Your task to perform on an android device: toggle sleep mode Image 0: 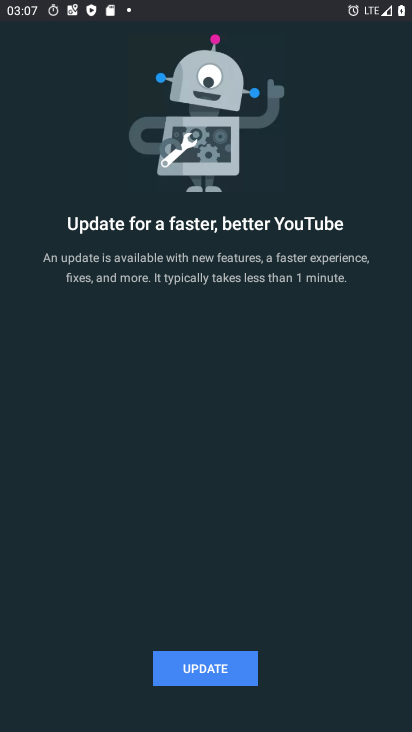
Step 0: press home button
Your task to perform on an android device: toggle sleep mode Image 1: 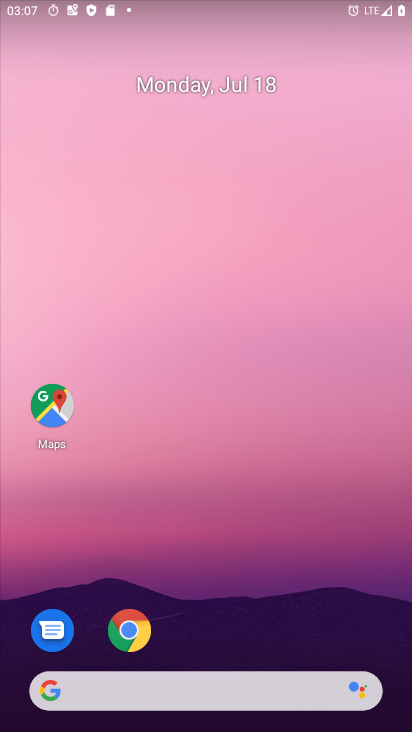
Step 1: drag from (209, 627) to (165, 69)
Your task to perform on an android device: toggle sleep mode Image 2: 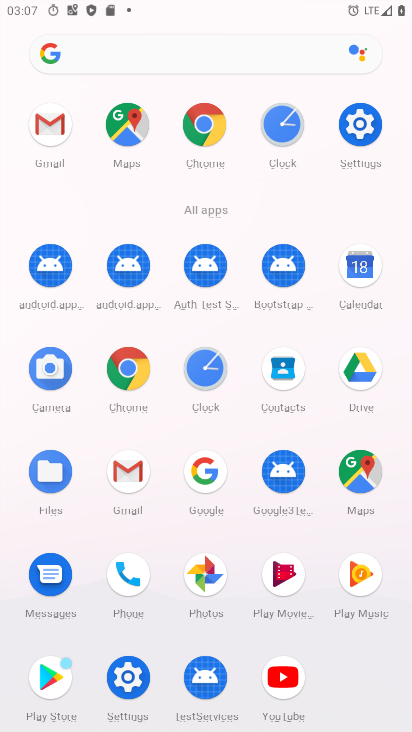
Step 2: click (359, 114)
Your task to perform on an android device: toggle sleep mode Image 3: 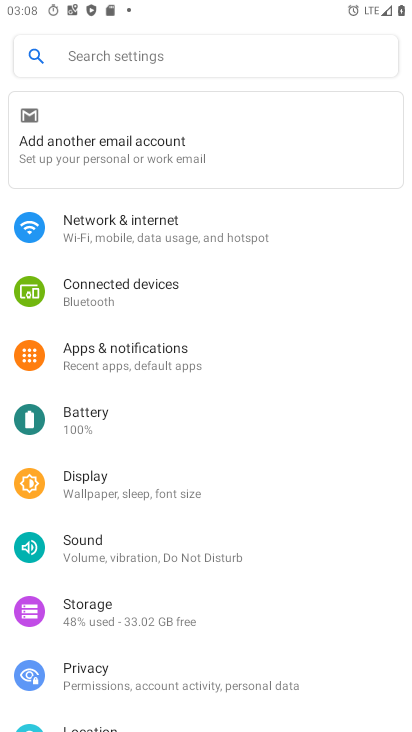
Step 3: task complete